Your task to perform on an android device: What's the news about the US? Image 0: 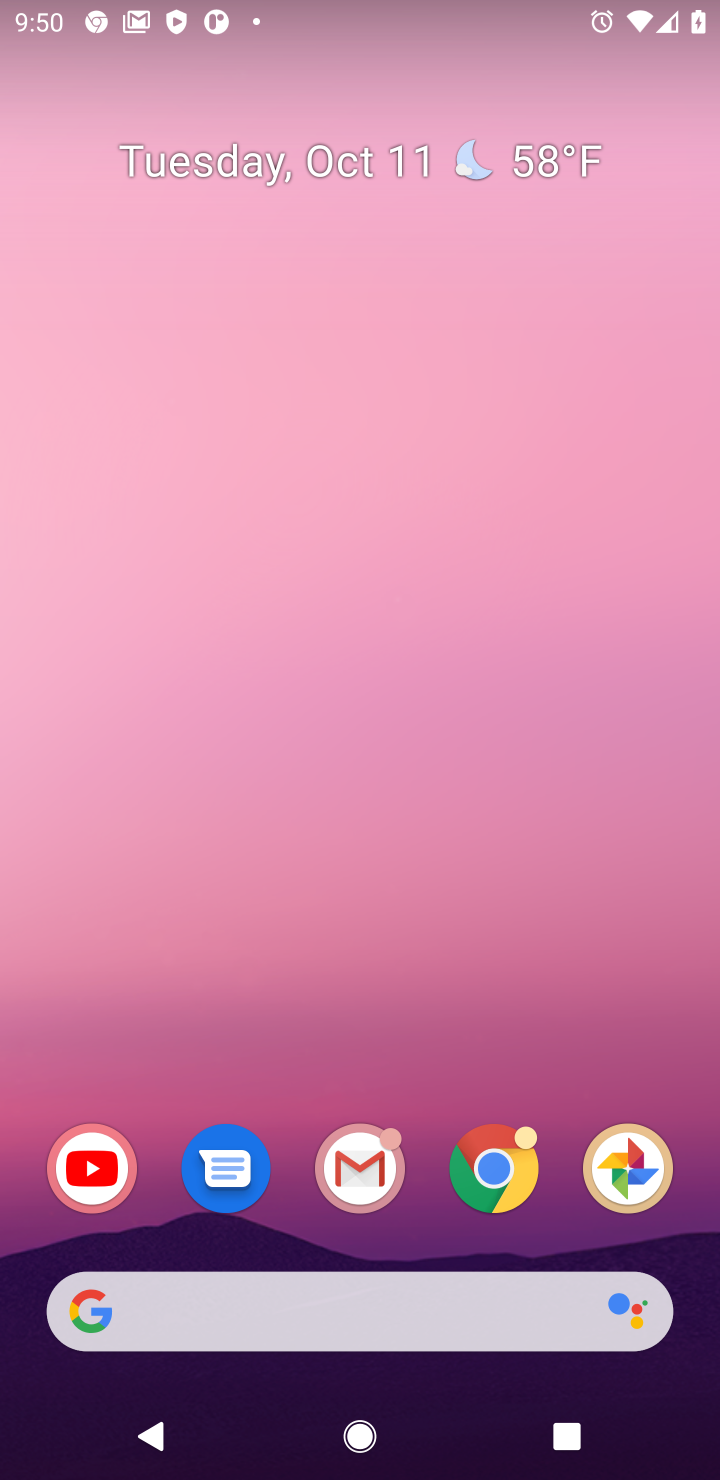
Step 0: click (498, 1176)
Your task to perform on an android device: What's the news about the US? Image 1: 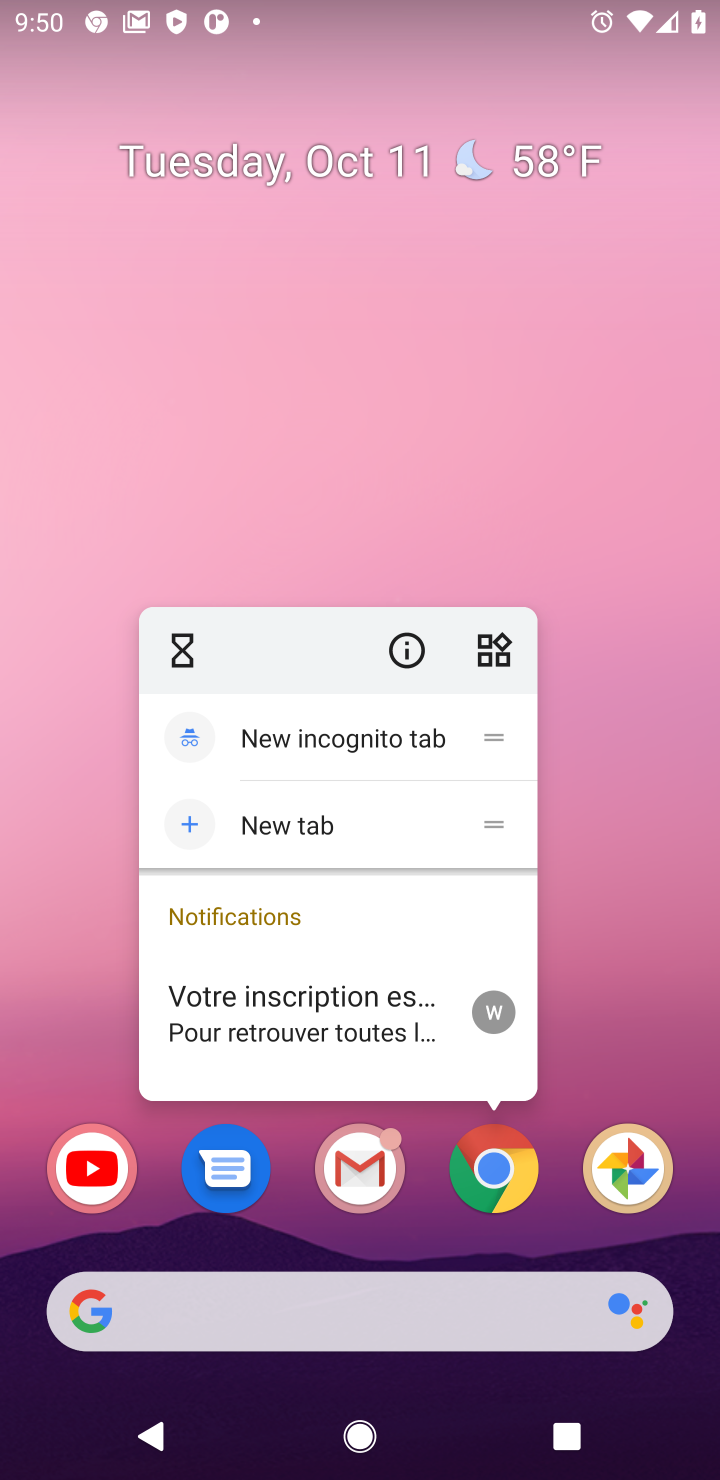
Step 1: press home button
Your task to perform on an android device: What's the news about the US? Image 2: 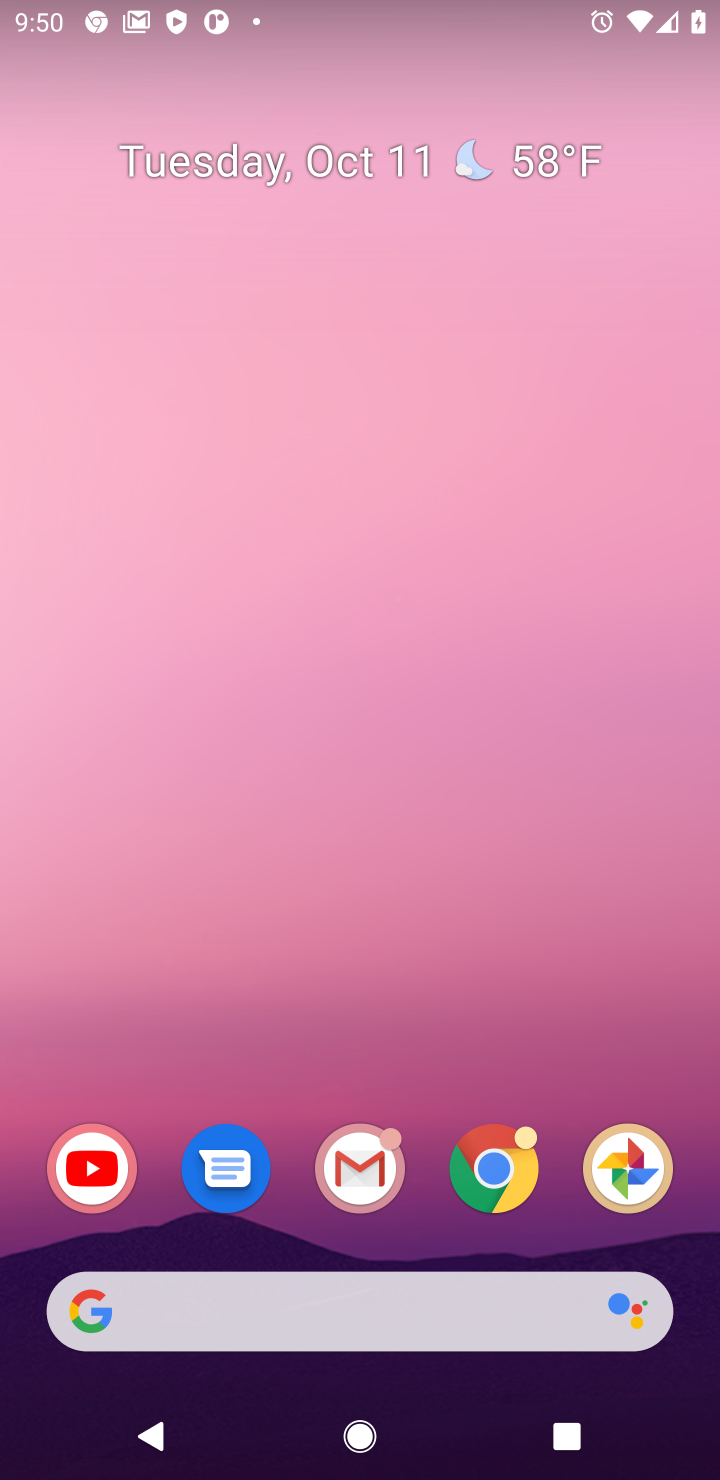
Step 2: press home button
Your task to perform on an android device: What's the news about the US? Image 3: 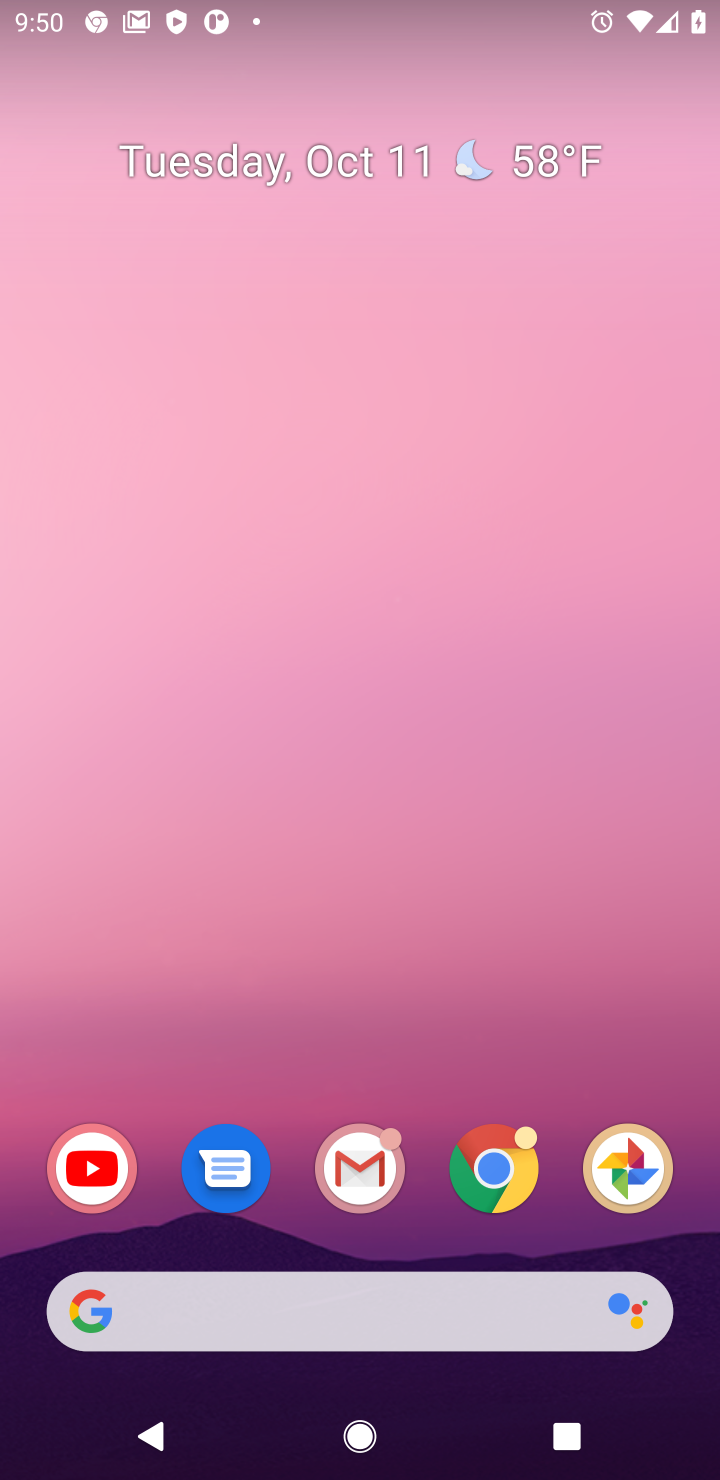
Step 3: click (505, 1170)
Your task to perform on an android device: What's the news about the US? Image 4: 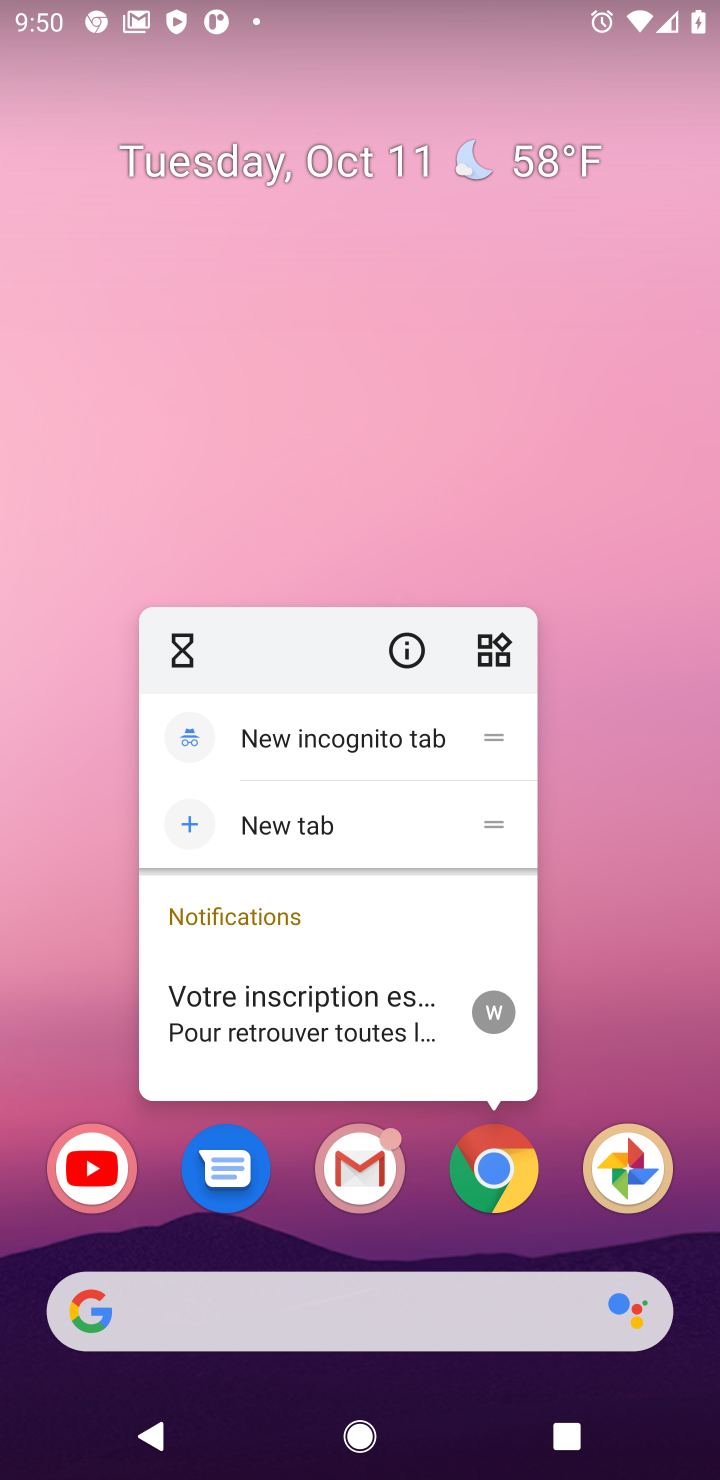
Step 4: press back button
Your task to perform on an android device: What's the news about the US? Image 5: 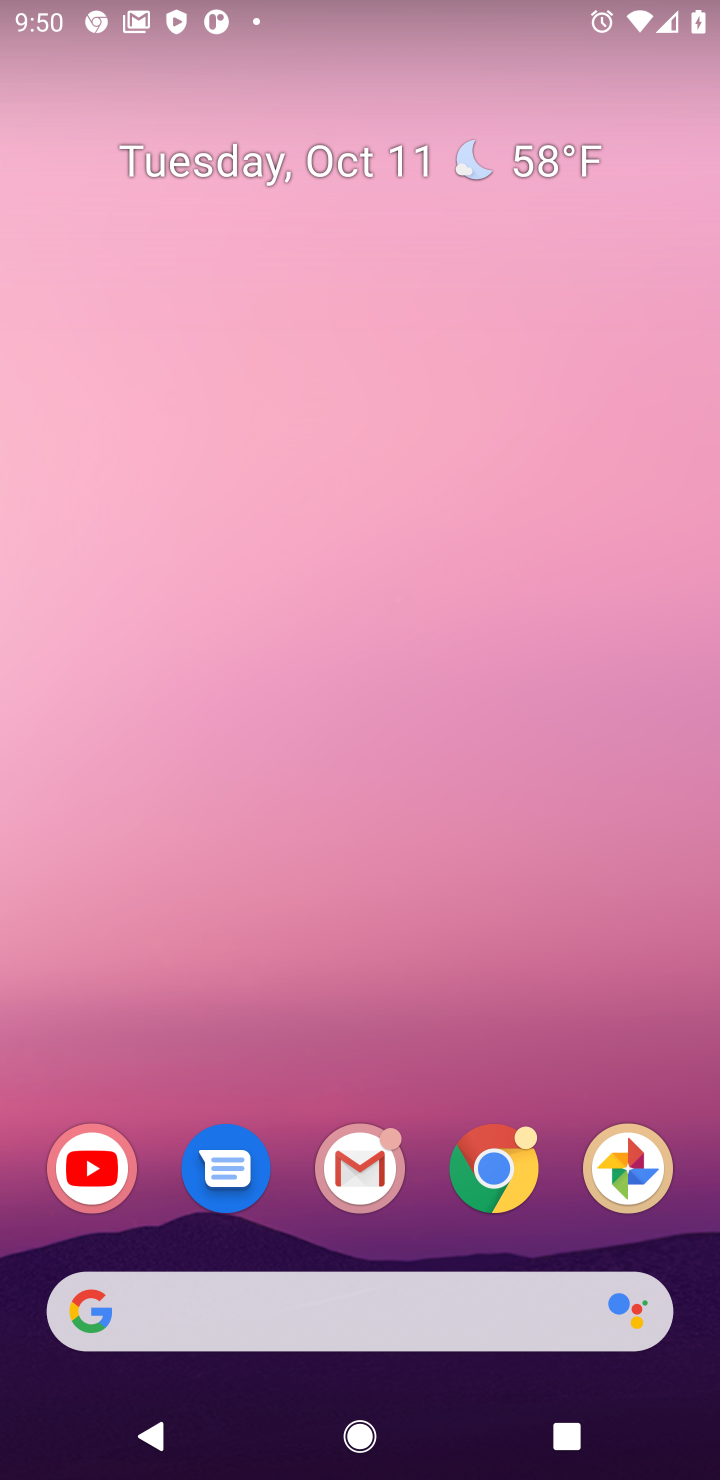
Step 5: press home button
Your task to perform on an android device: What's the news about the US? Image 6: 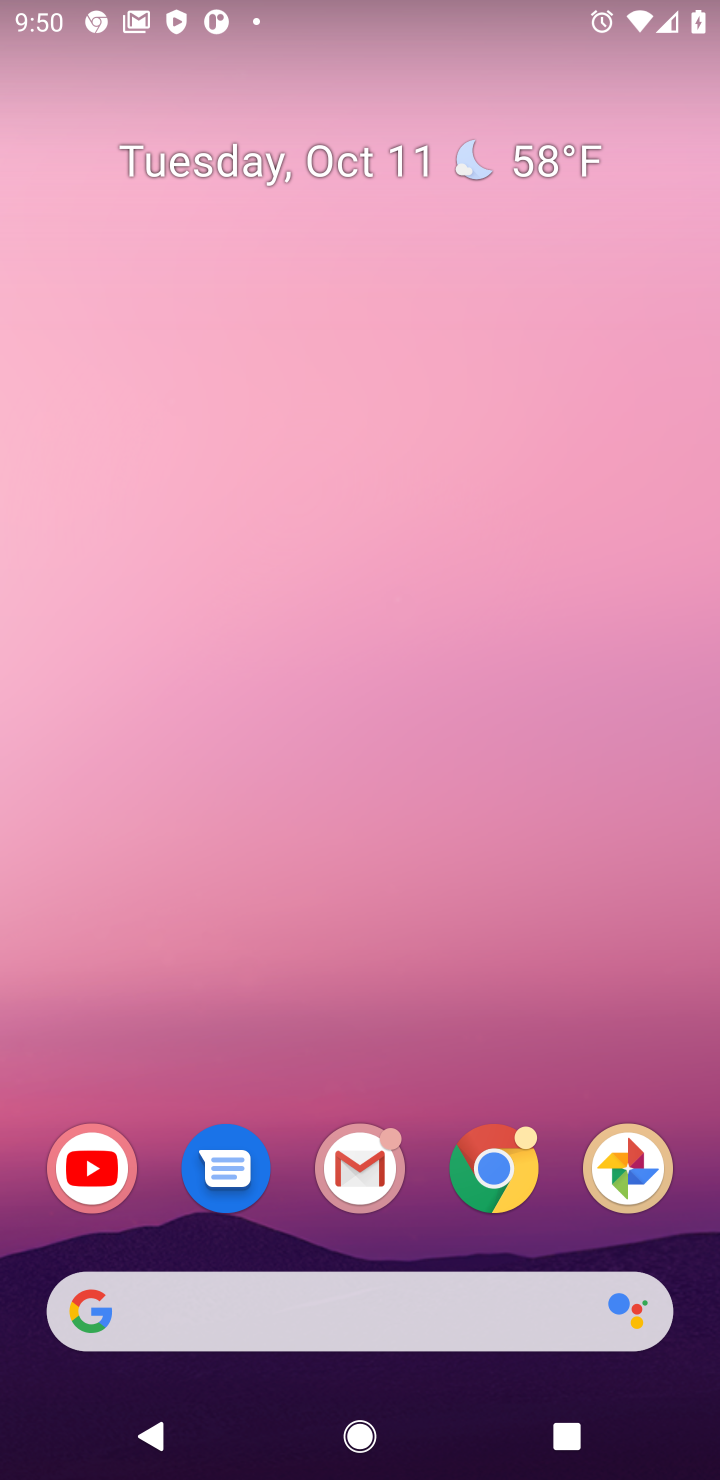
Step 6: click (501, 1159)
Your task to perform on an android device: What's the news about the US? Image 7: 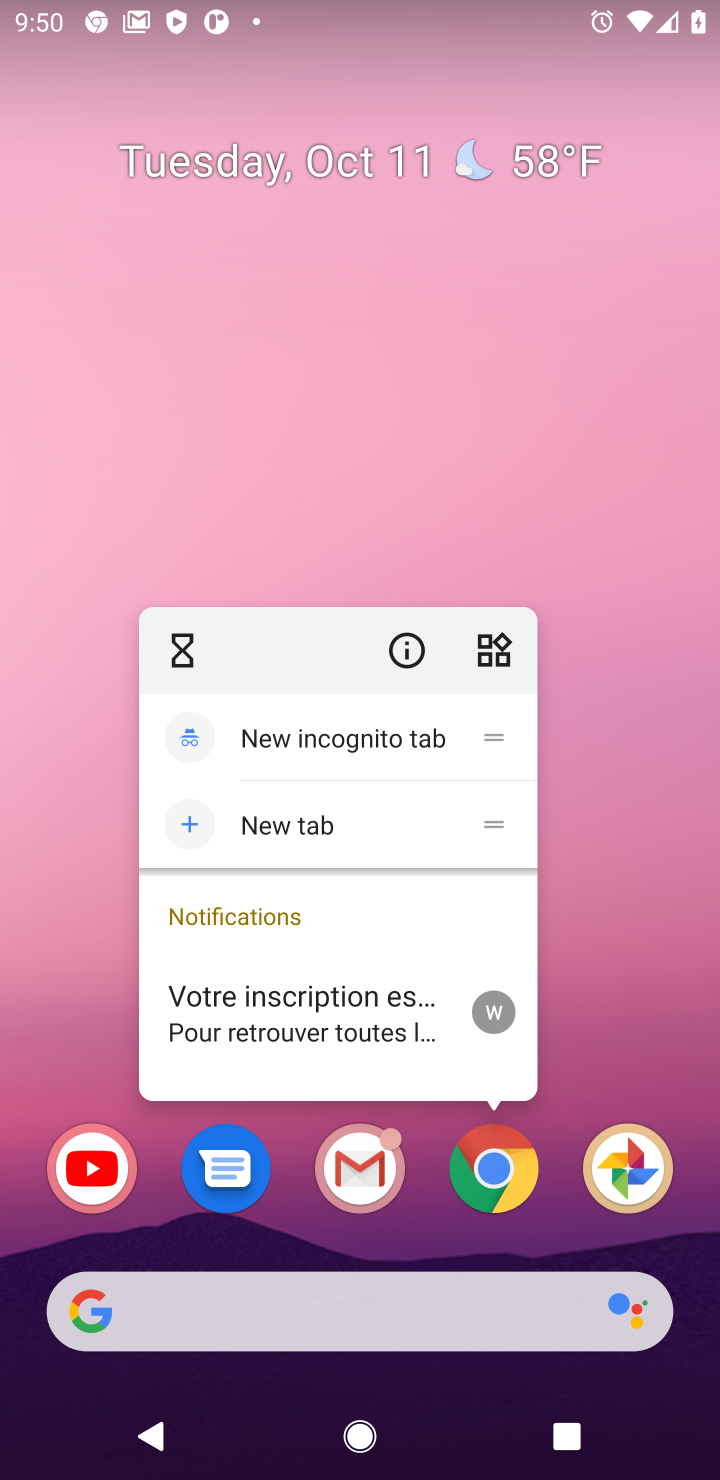
Step 7: click (508, 1182)
Your task to perform on an android device: What's the news about the US? Image 8: 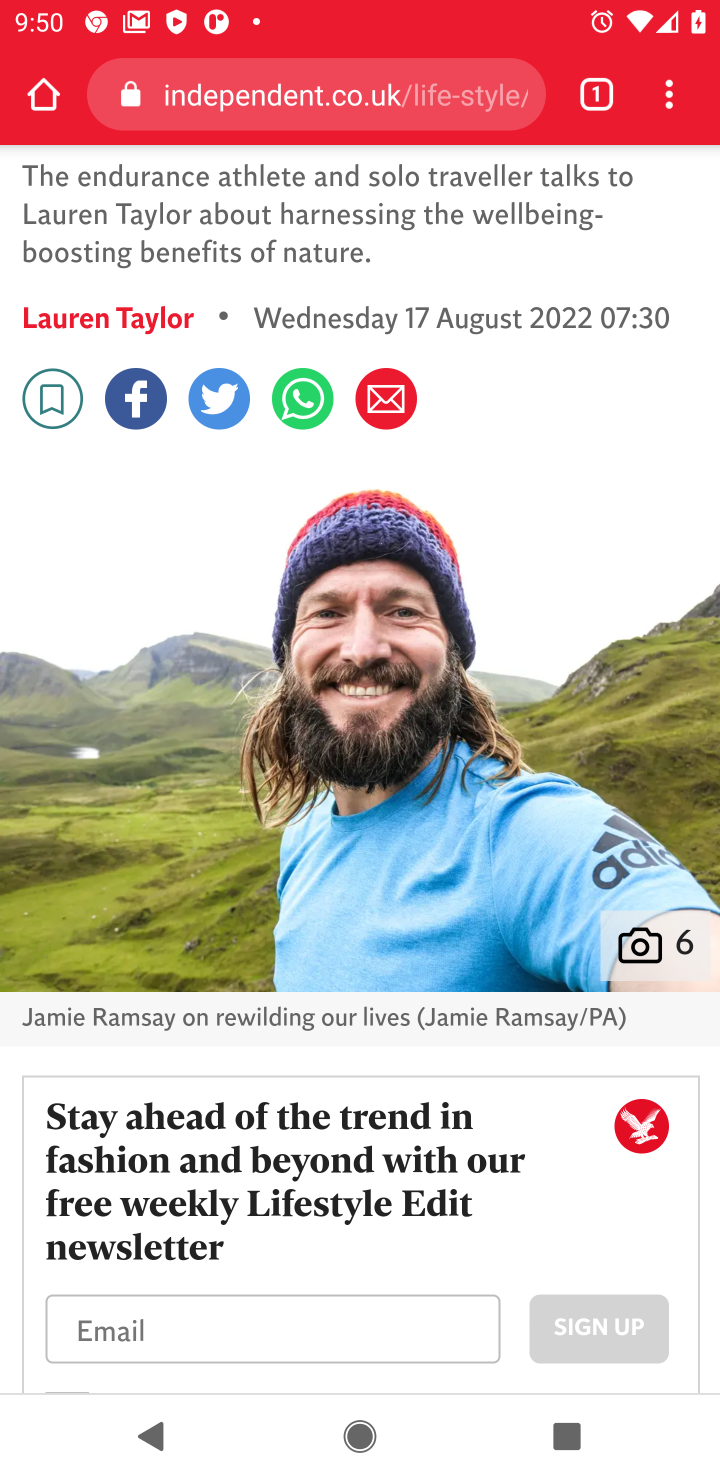
Step 8: click (316, 96)
Your task to perform on an android device: What's the news about the US? Image 9: 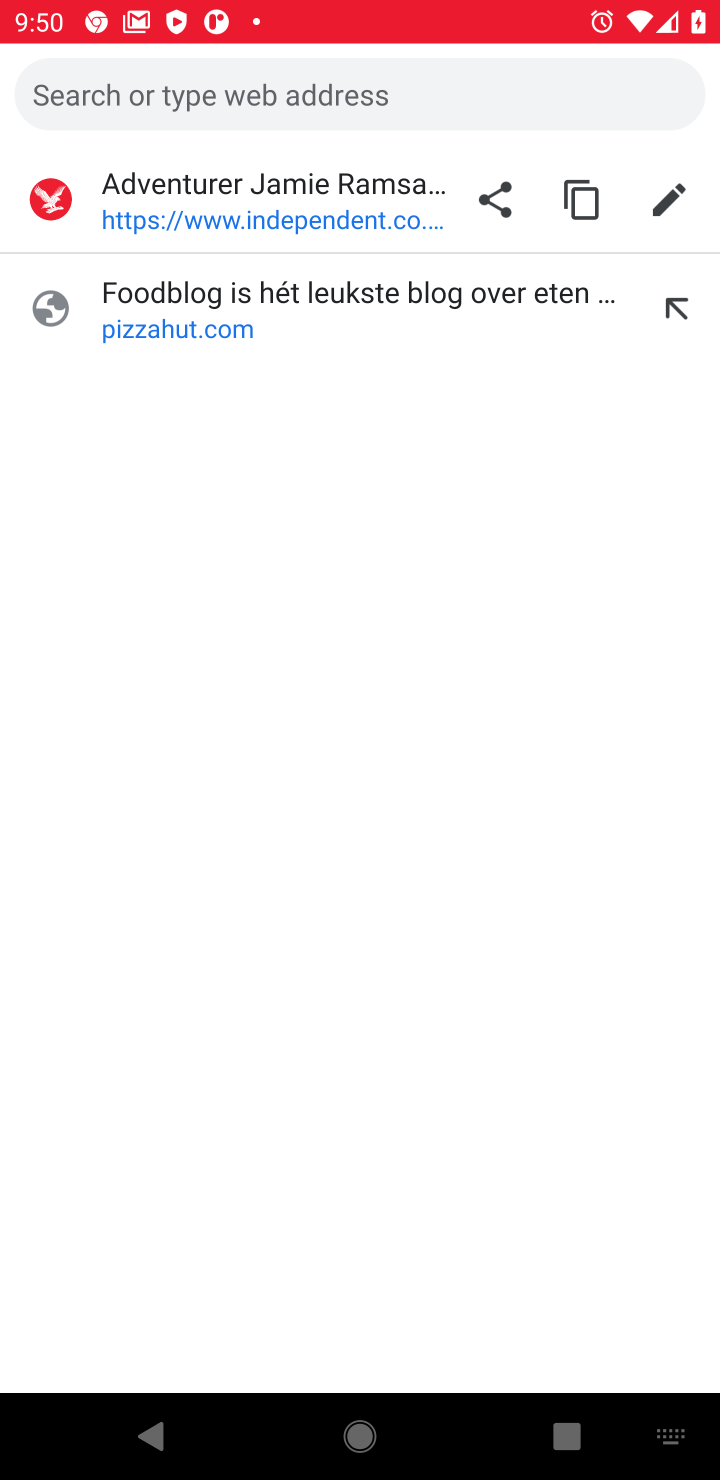
Step 9: type "news about US"
Your task to perform on an android device: What's the news about the US? Image 10: 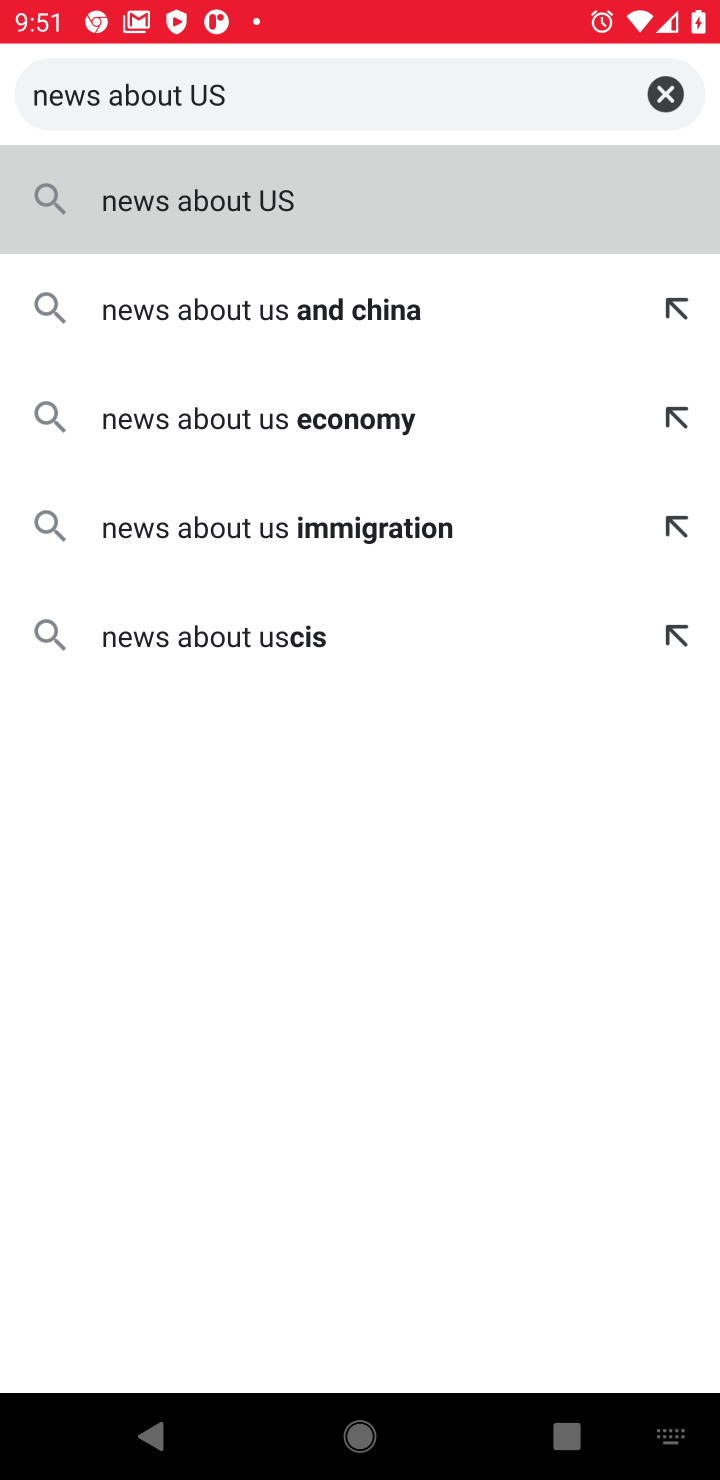
Step 10: click (233, 181)
Your task to perform on an android device: What's the news about the US? Image 11: 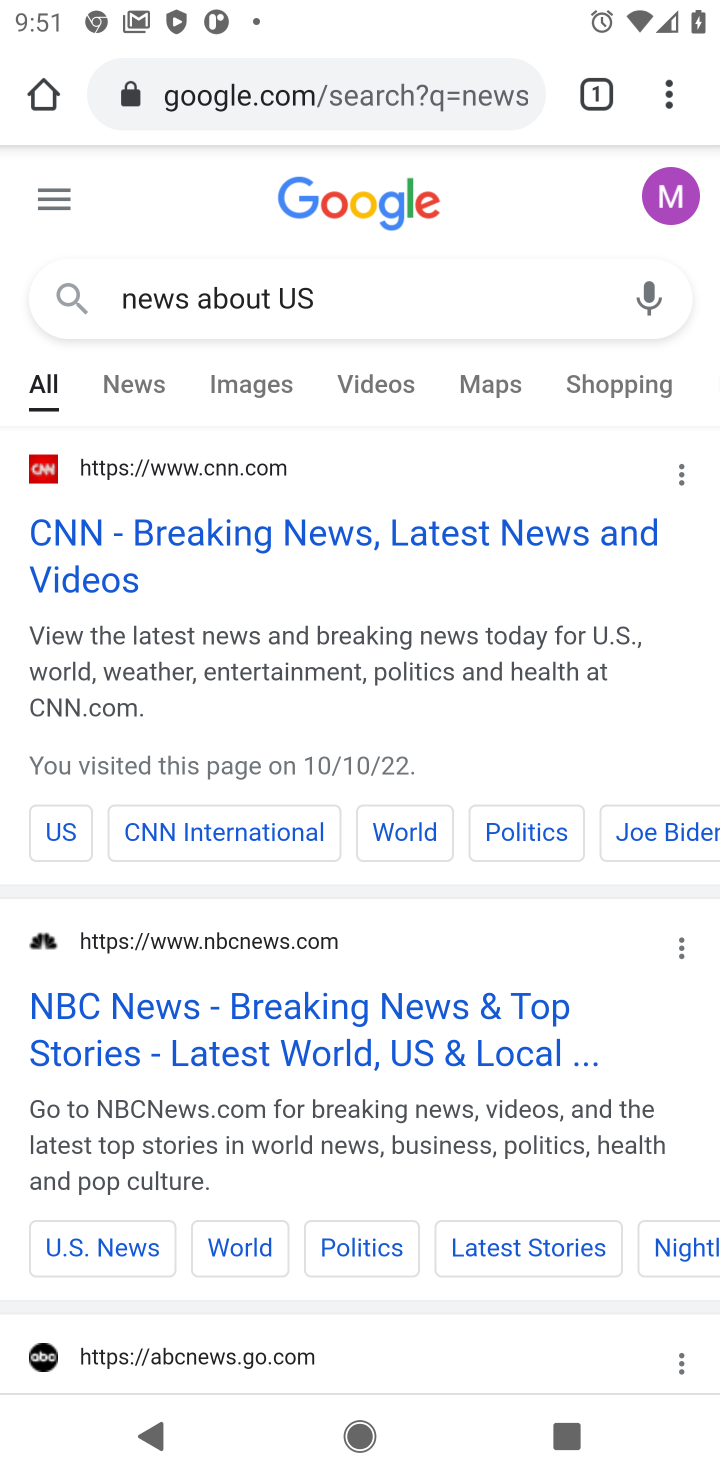
Step 11: drag from (596, 1133) to (596, 645)
Your task to perform on an android device: What's the news about the US? Image 12: 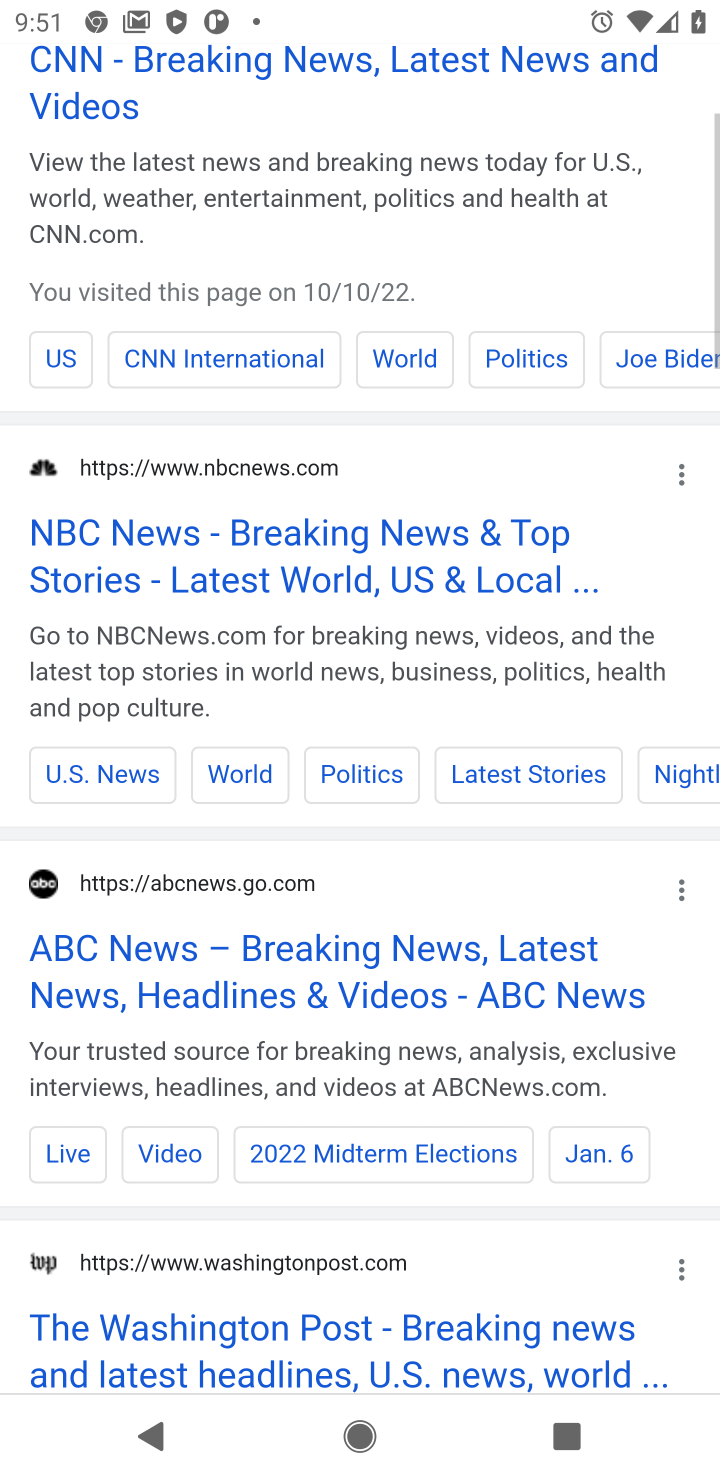
Step 12: drag from (171, 1107) to (253, 419)
Your task to perform on an android device: What's the news about the US? Image 13: 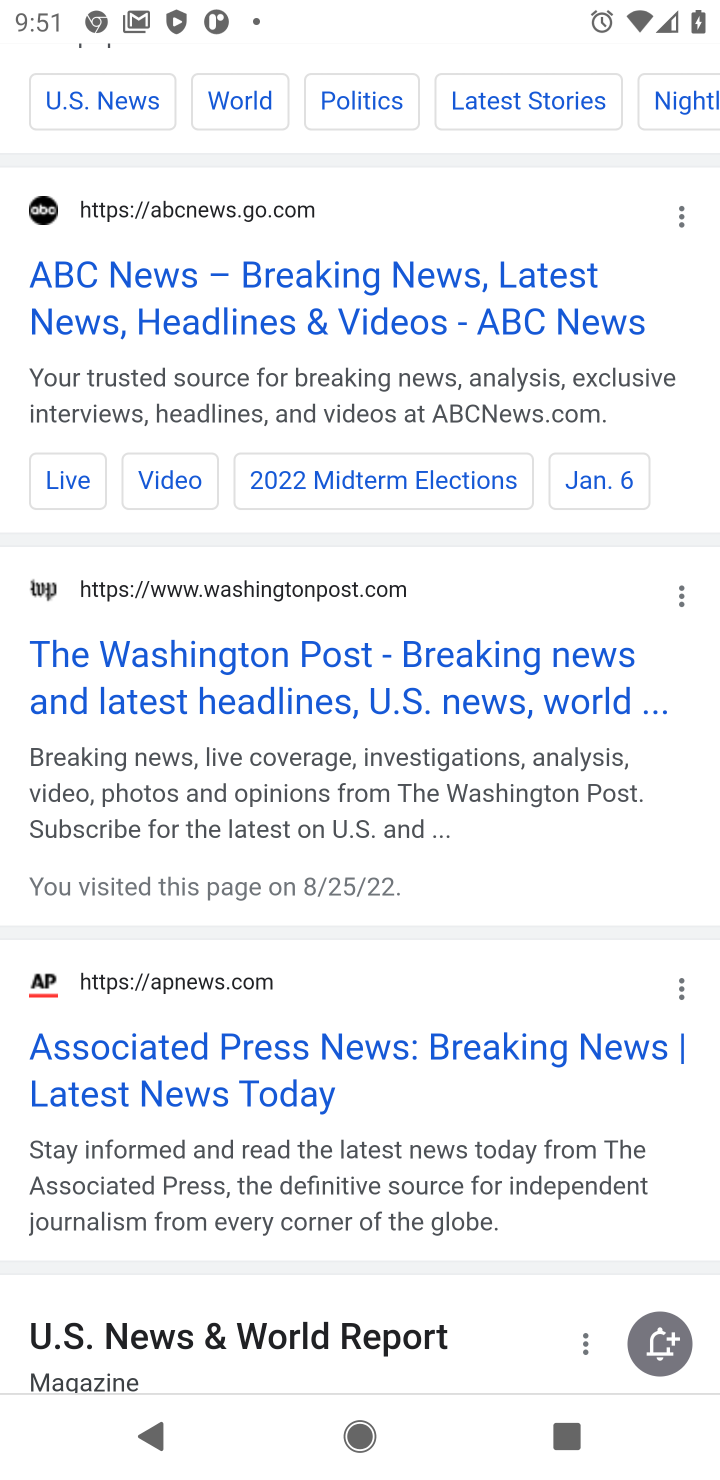
Step 13: drag from (336, 1136) to (301, 1370)
Your task to perform on an android device: What's the news about the US? Image 14: 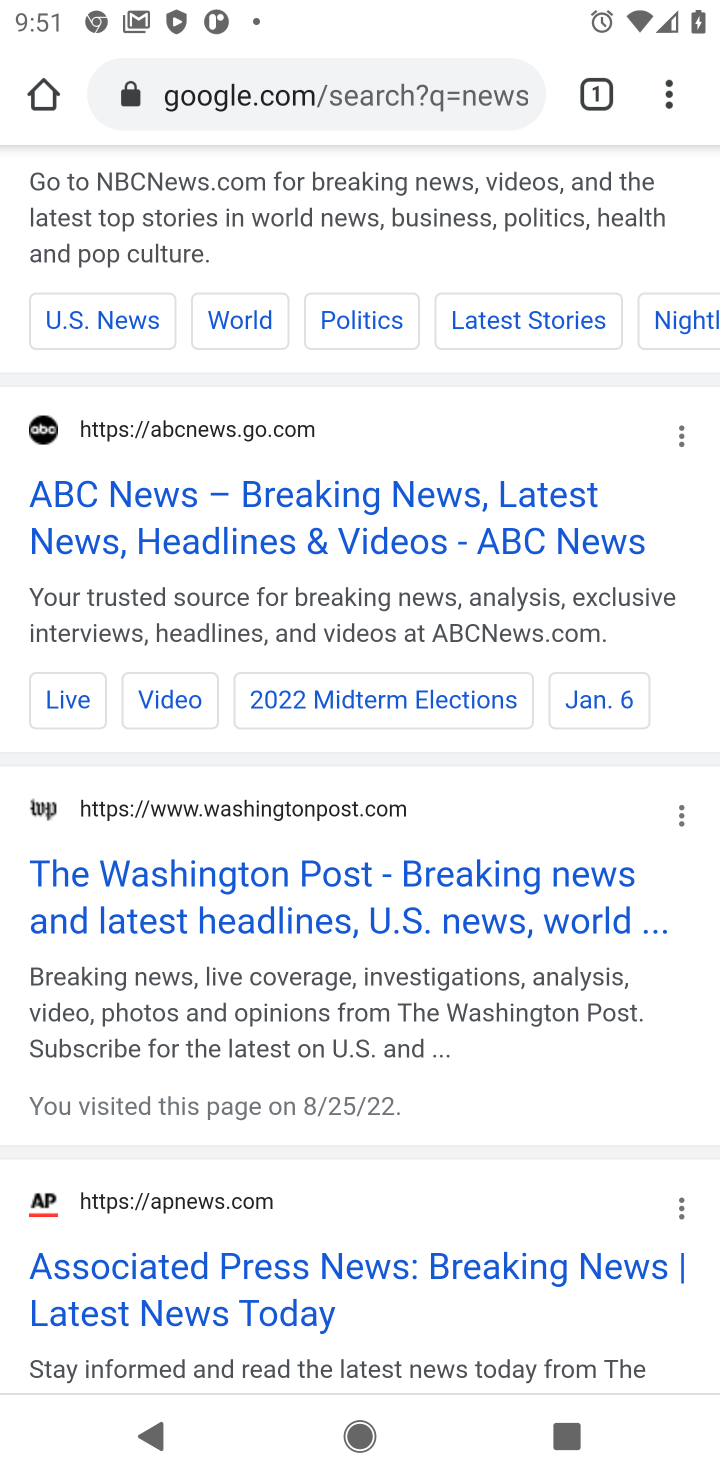
Step 14: drag from (357, 481) to (292, 1282)
Your task to perform on an android device: What's the news about the US? Image 15: 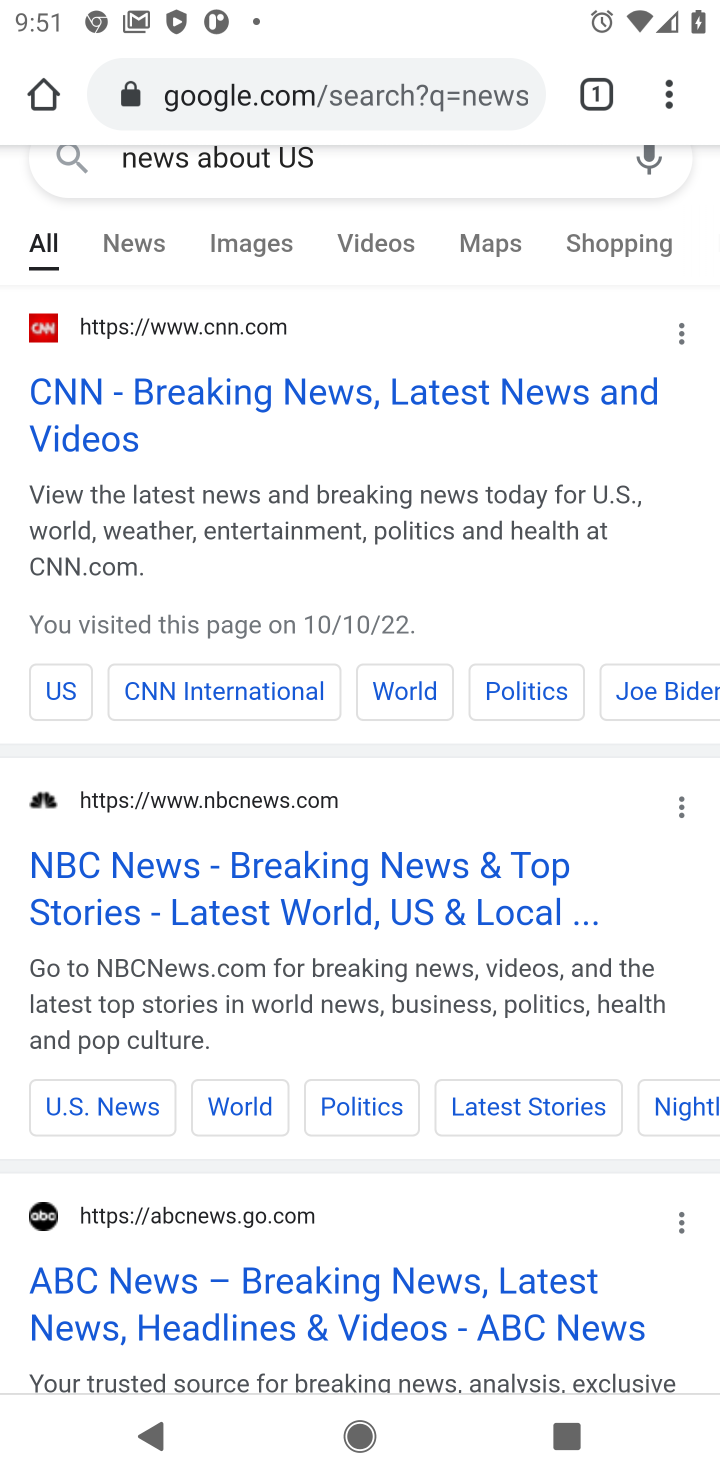
Step 15: click (174, 385)
Your task to perform on an android device: What's the news about the US? Image 16: 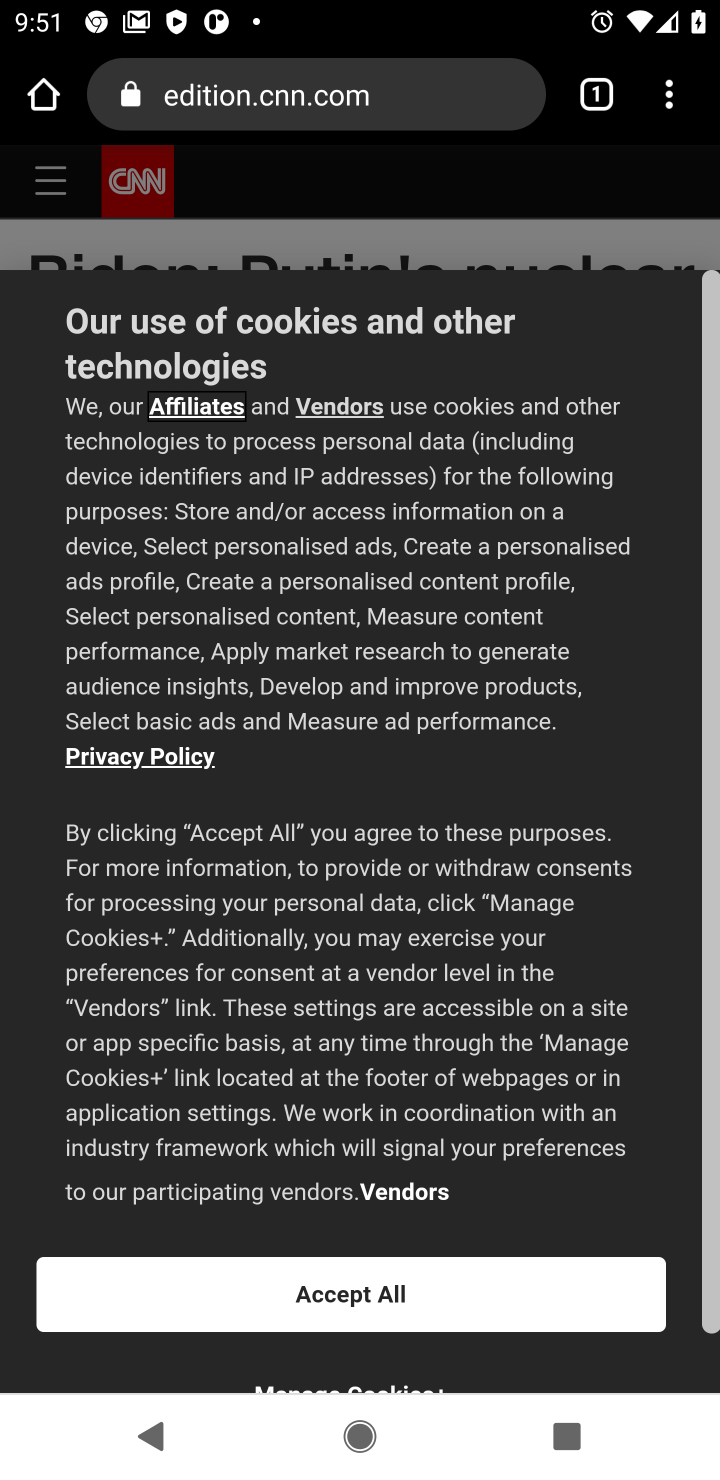
Step 16: click (407, 1302)
Your task to perform on an android device: What's the news about the US? Image 17: 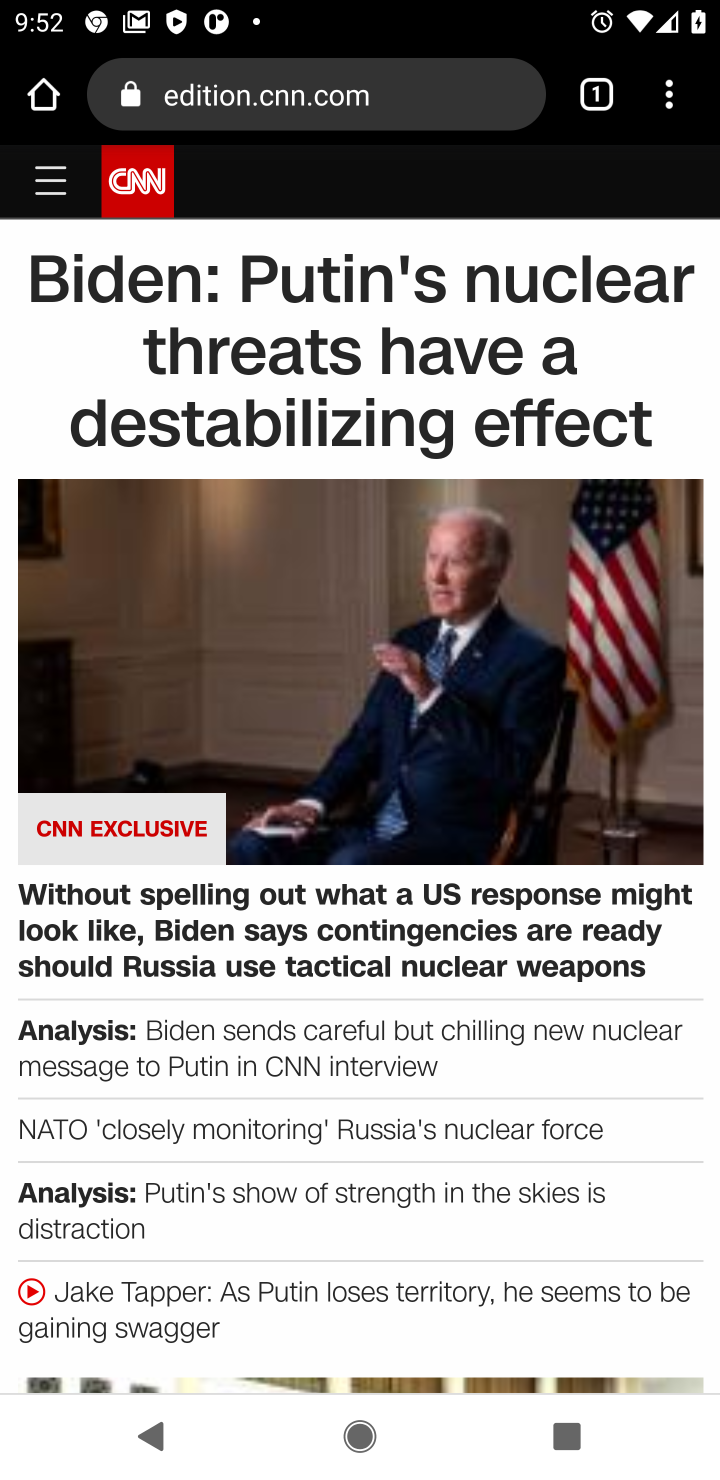
Step 17: click (445, 566)
Your task to perform on an android device: What's the news about the US? Image 18: 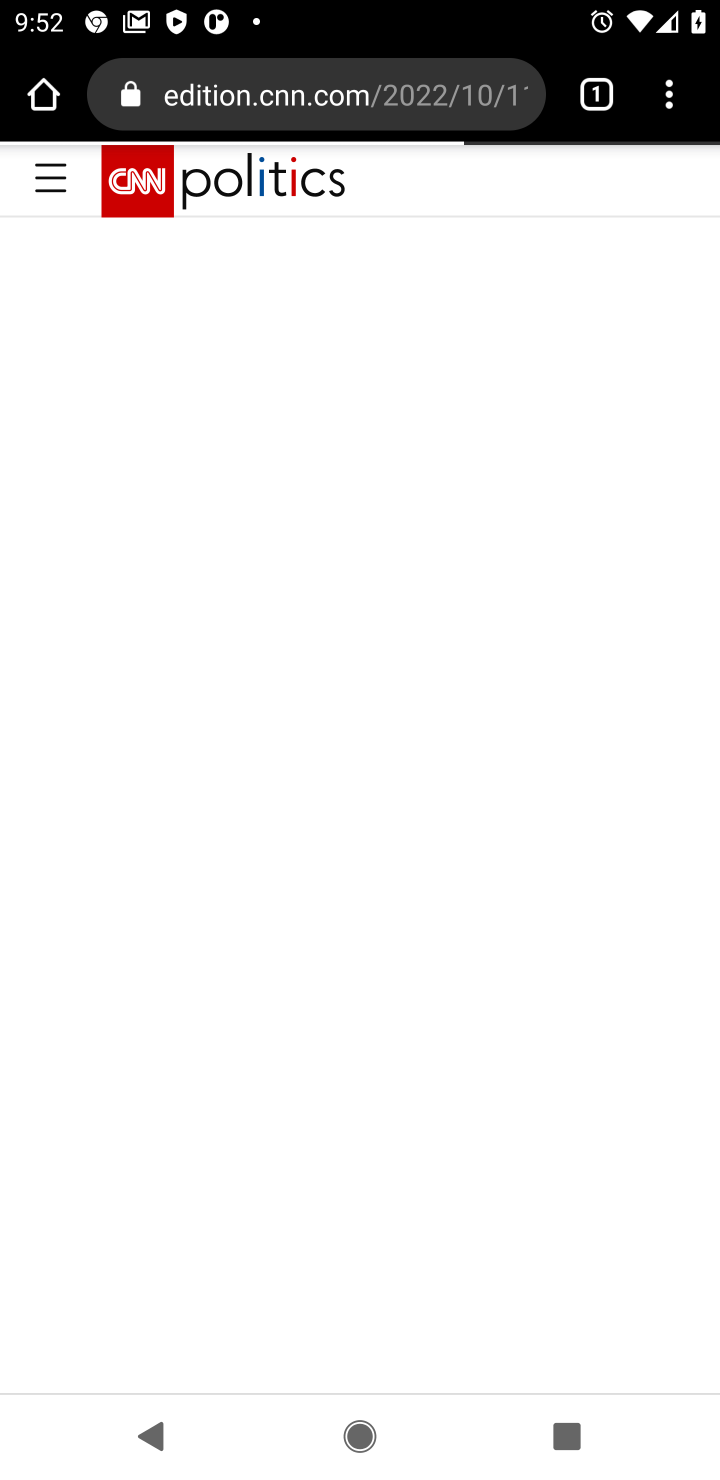
Step 18: task complete